Your task to perform on an android device: Open Android settings Image 0: 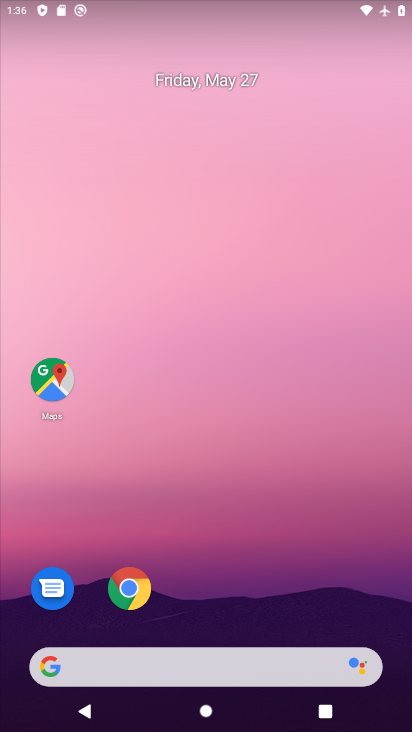
Step 0: drag from (364, 597) to (302, 100)
Your task to perform on an android device: Open Android settings Image 1: 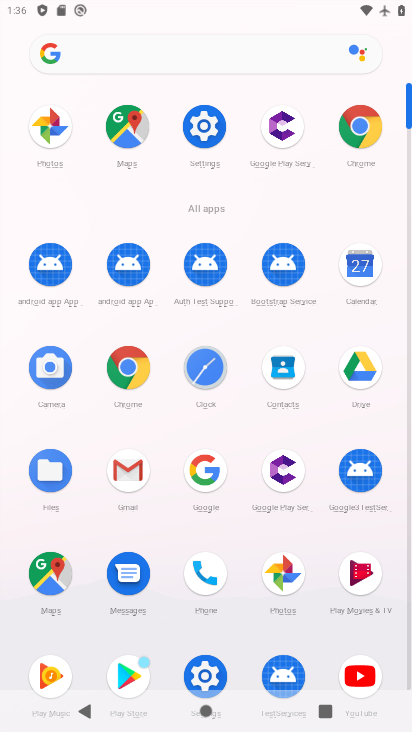
Step 1: click (410, 673)
Your task to perform on an android device: Open Android settings Image 2: 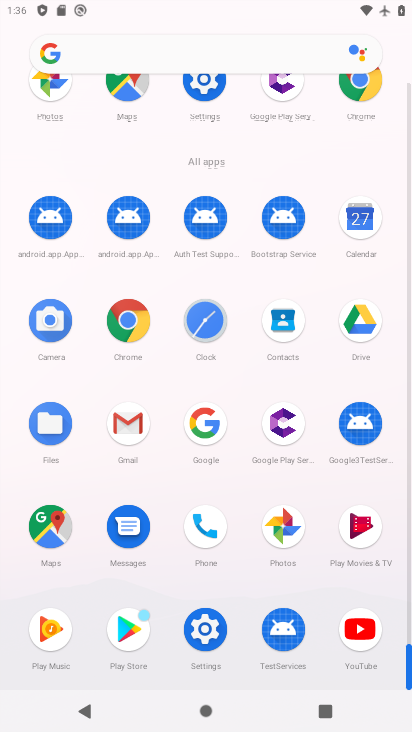
Step 2: click (208, 626)
Your task to perform on an android device: Open Android settings Image 3: 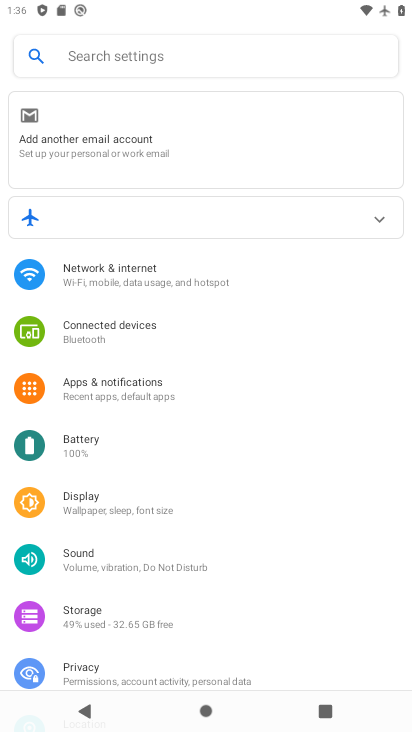
Step 3: drag from (292, 587) to (287, 115)
Your task to perform on an android device: Open Android settings Image 4: 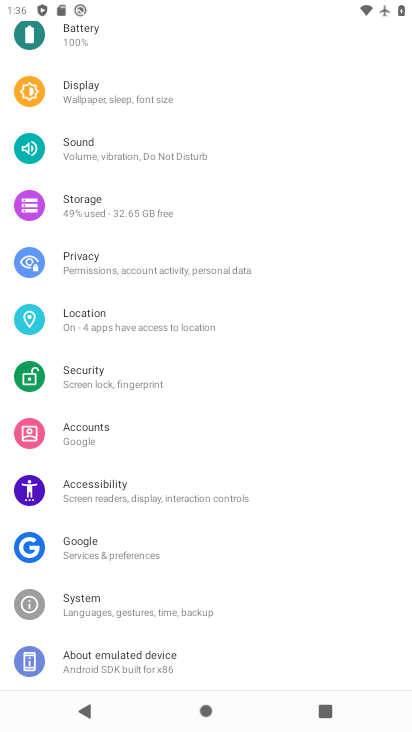
Step 4: click (112, 645)
Your task to perform on an android device: Open Android settings Image 5: 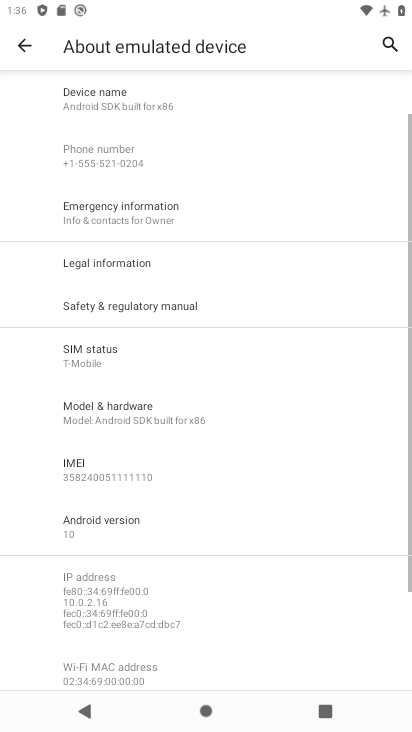
Step 5: task complete